Your task to perform on an android device: open a bookmark in the chrome app Image 0: 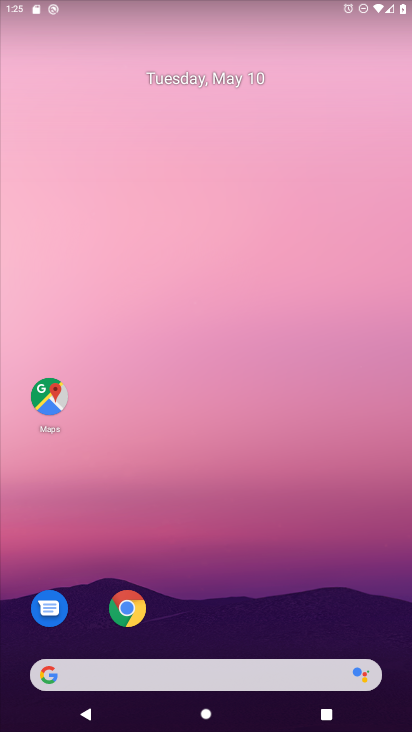
Step 0: drag from (319, 616) to (329, 225)
Your task to perform on an android device: open a bookmark in the chrome app Image 1: 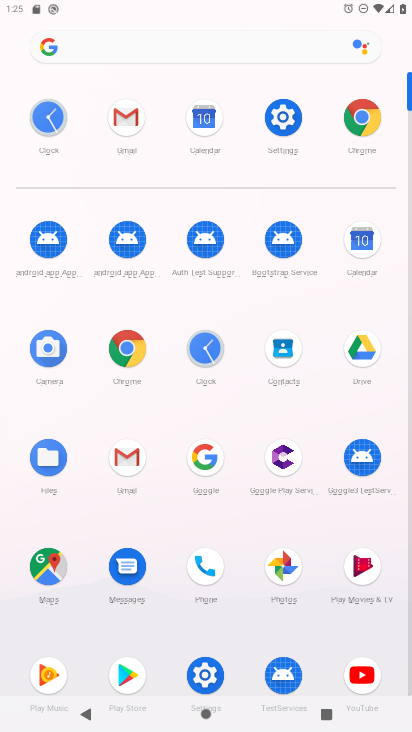
Step 1: click (135, 358)
Your task to perform on an android device: open a bookmark in the chrome app Image 2: 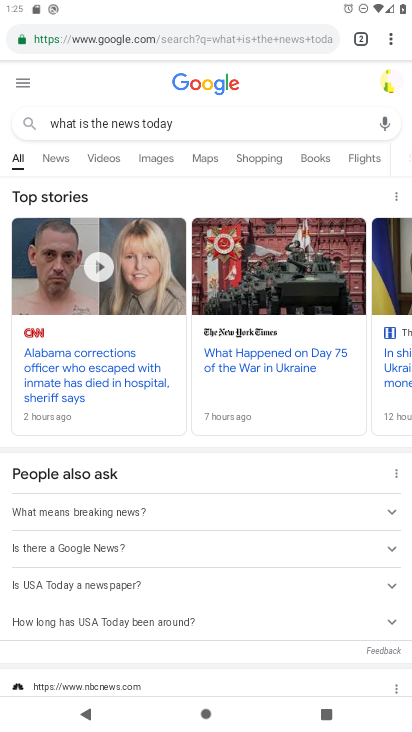
Step 2: task complete